Your task to perform on an android device: turn on improve location accuracy Image 0: 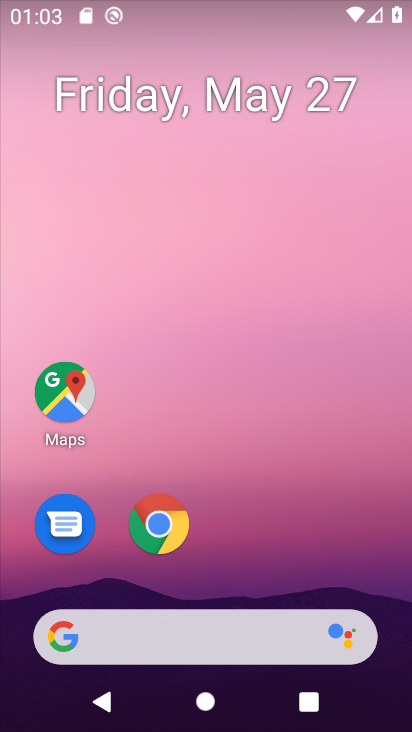
Step 0: drag from (237, 547) to (212, 71)
Your task to perform on an android device: turn on improve location accuracy Image 1: 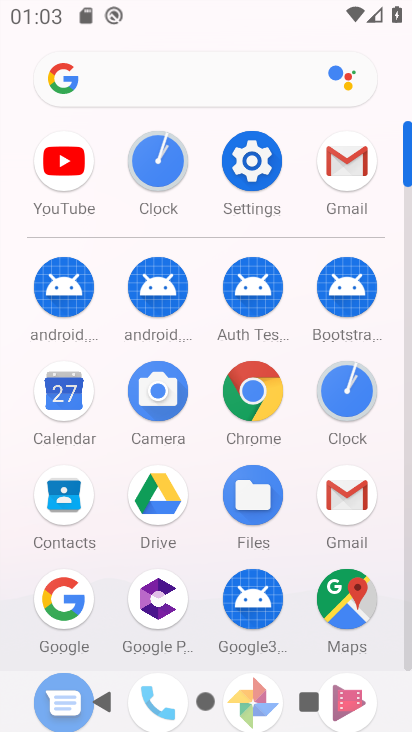
Step 1: click (254, 163)
Your task to perform on an android device: turn on improve location accuracy Image 2: 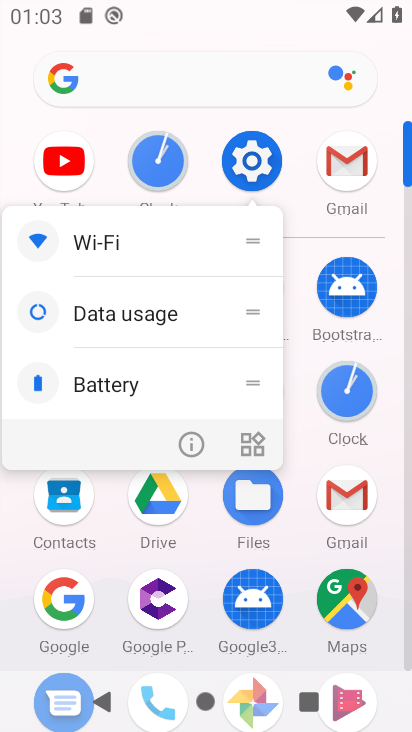
Step 2: click (254, 163)
Your task to perform on an android device: turn on improve location accuracy Image 3: 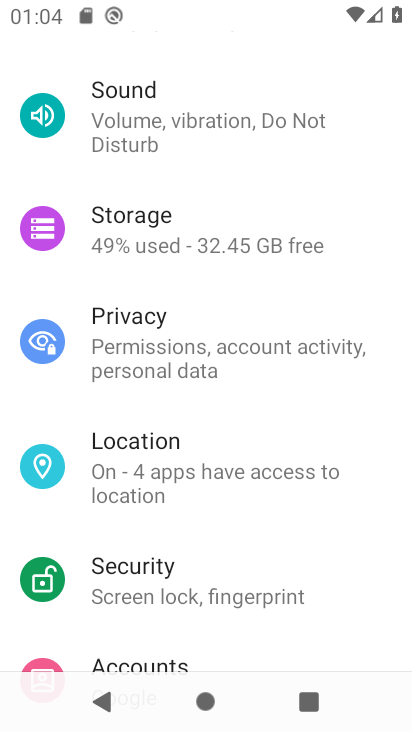
Step 3: click (243, 466)
Your task to perform on an android device: turn on improve location accuracy Image 4: 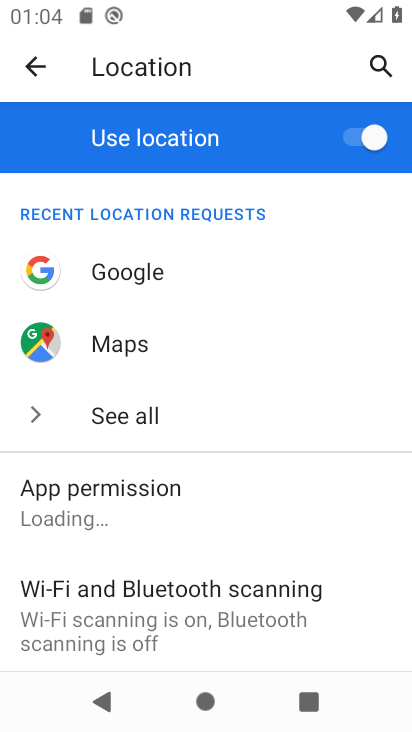
Step 4: drag from (245, 525) to (241, 171)
Your task to perform on an android device: turn on improve location accuracy Image 5: 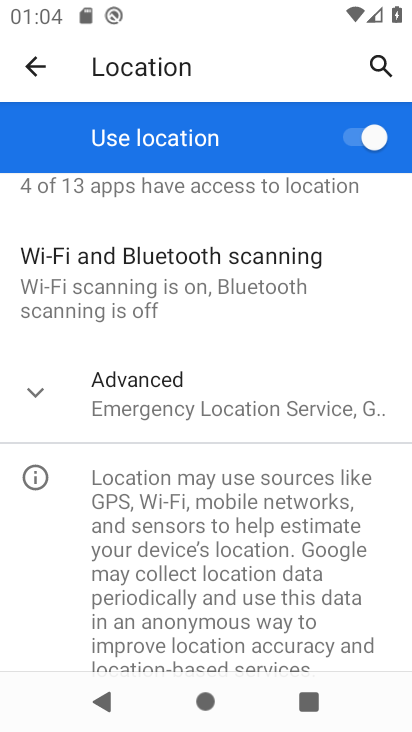
Step 5: click (39, 394)
Your task to perform on an android device: turn on improve location accuracy Image 6: 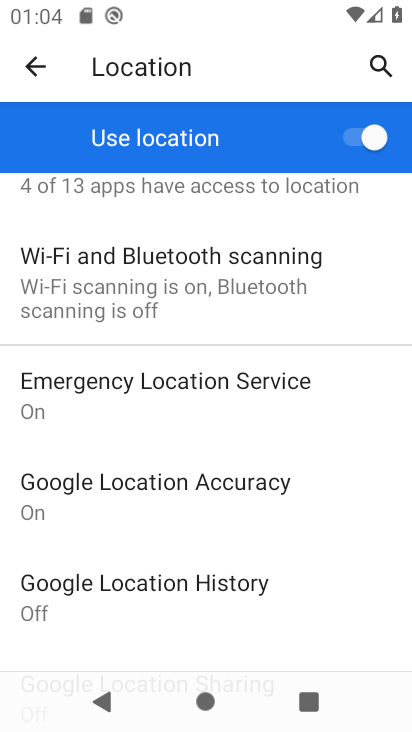
Step 6: click (190, 503)
Your task to perform on an android device: turn on improve location accuracy Image 7: 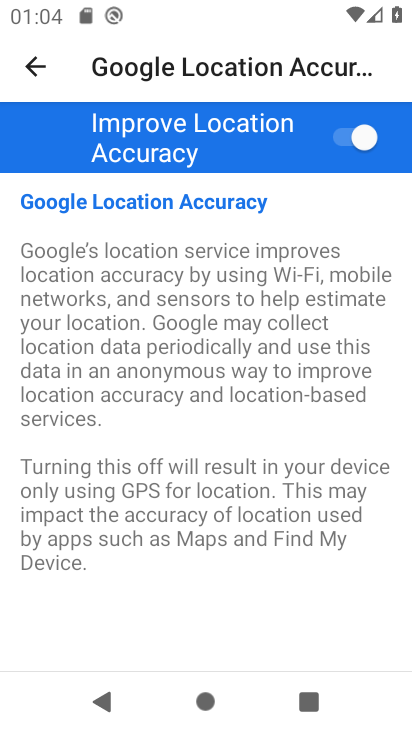
Step 7: task complete